Your task to perform on an android device: turn off location history Image 0: 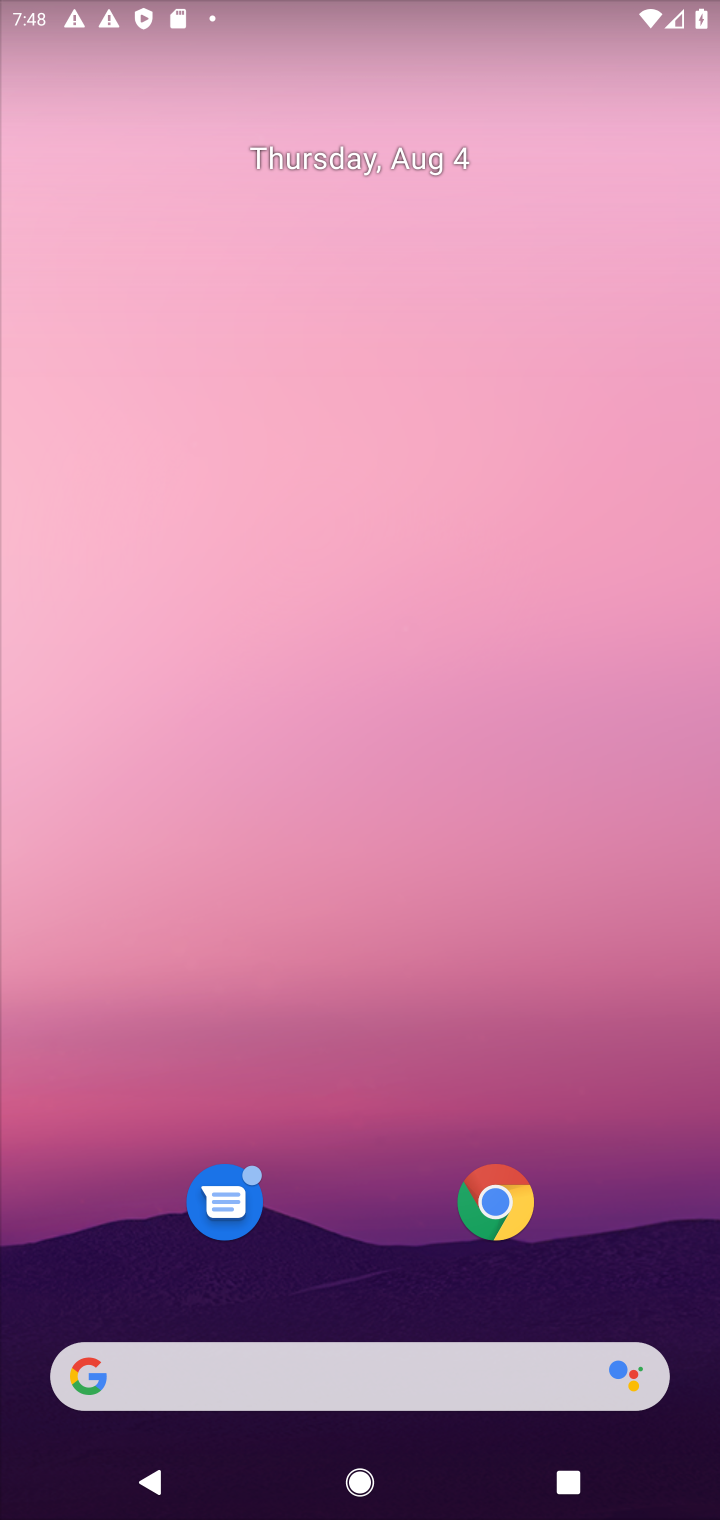
Step 0: drag from (365, 685) to (407, 225)
Your task to perform on an android device: turn off location history Image 1: 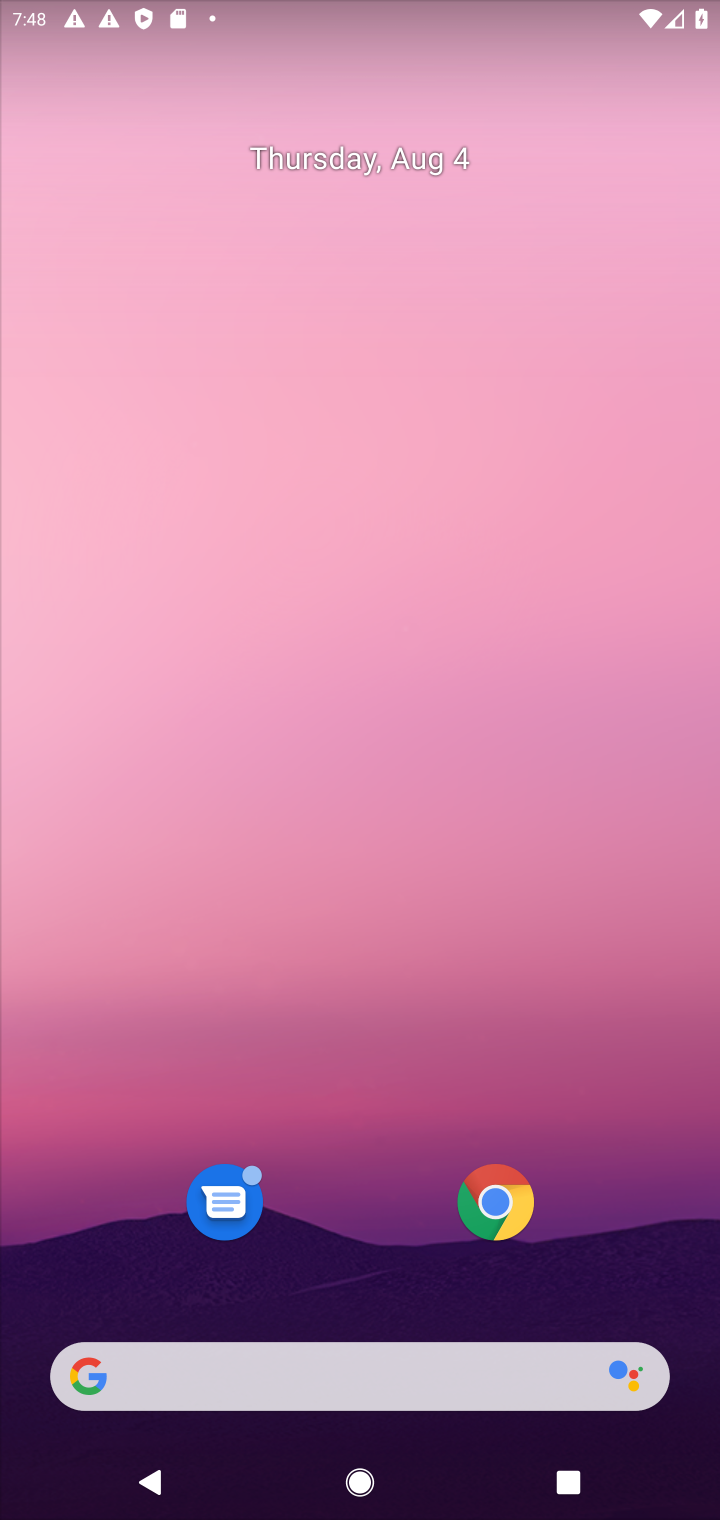
Step 1: drag from (363, 1241) to (361, 242)
Your task to perform on an android device: turn off location history Image 2: 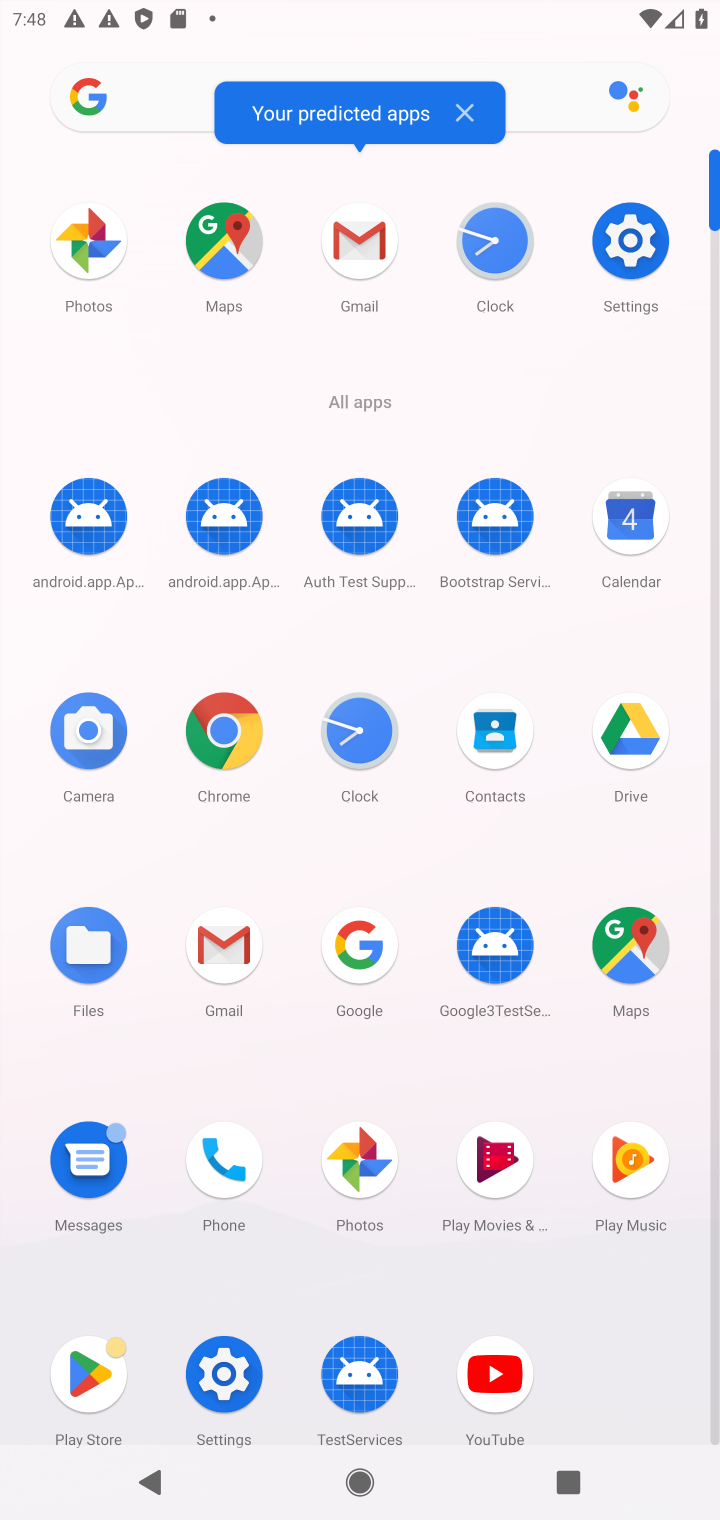
Step 2: click (622, 276)
Your task to perform on an android device: turn off location history Image 3: 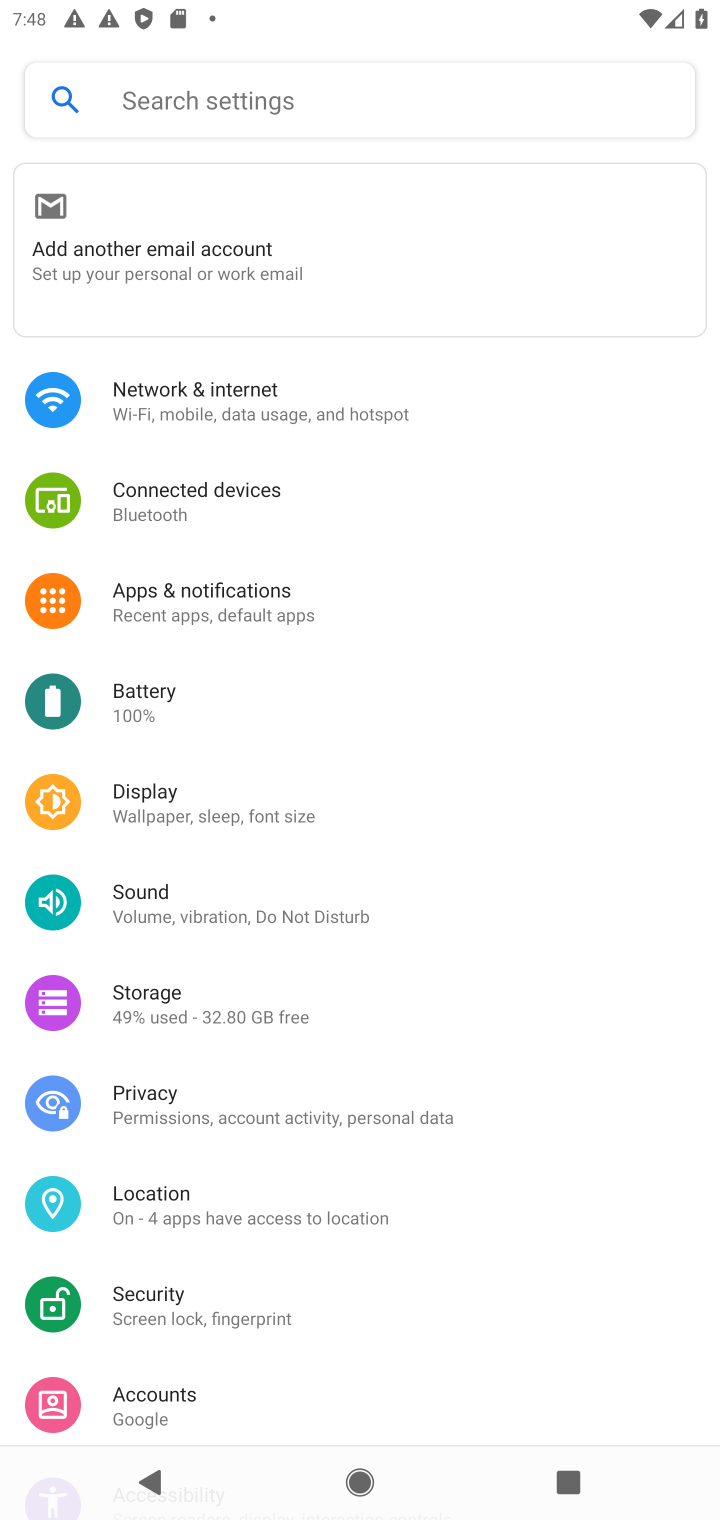
Step 3: drag from (247, 1180) to (250, 738)
Your task to perform on an android device: turn off location history Image 4: 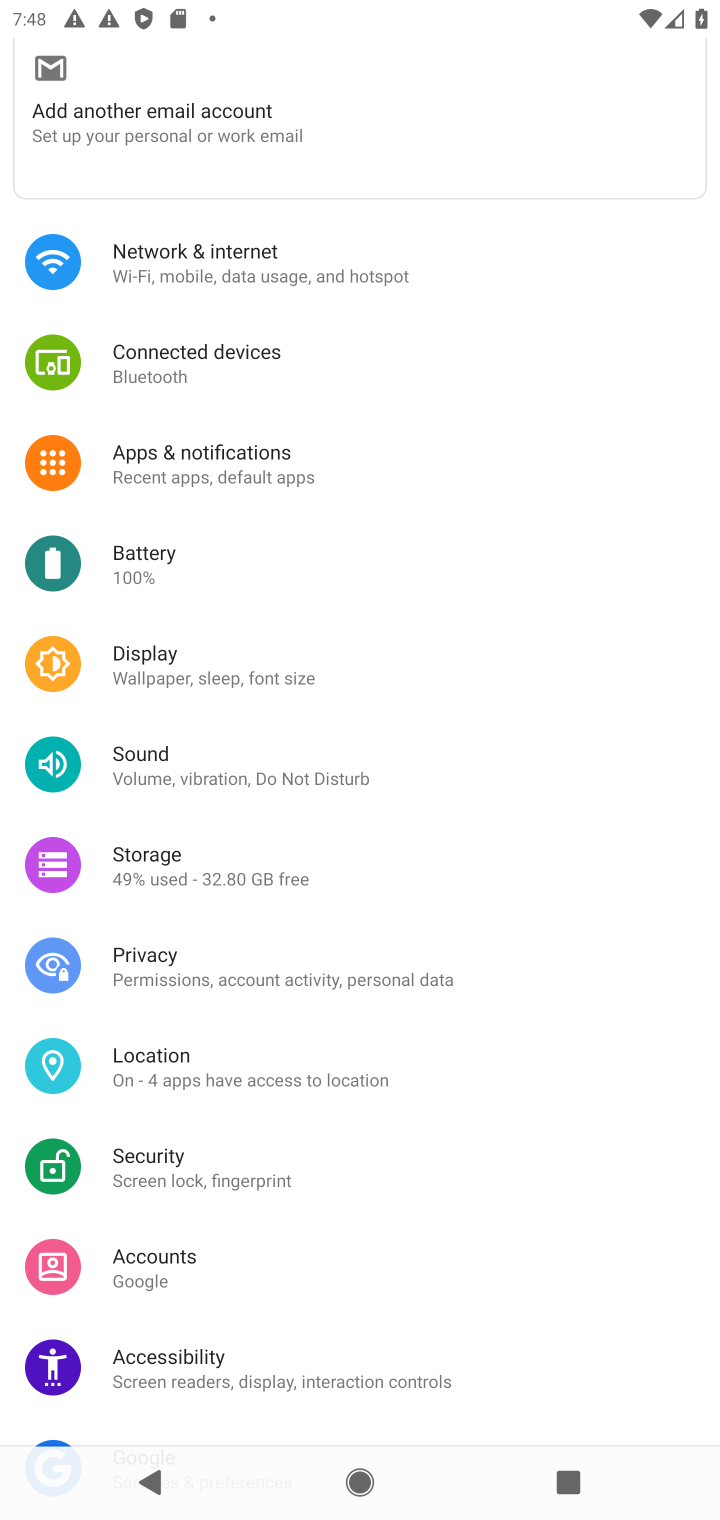
Step 4: click (237, 1048)
Your task to perform on an android device: turn off location history Image 5: 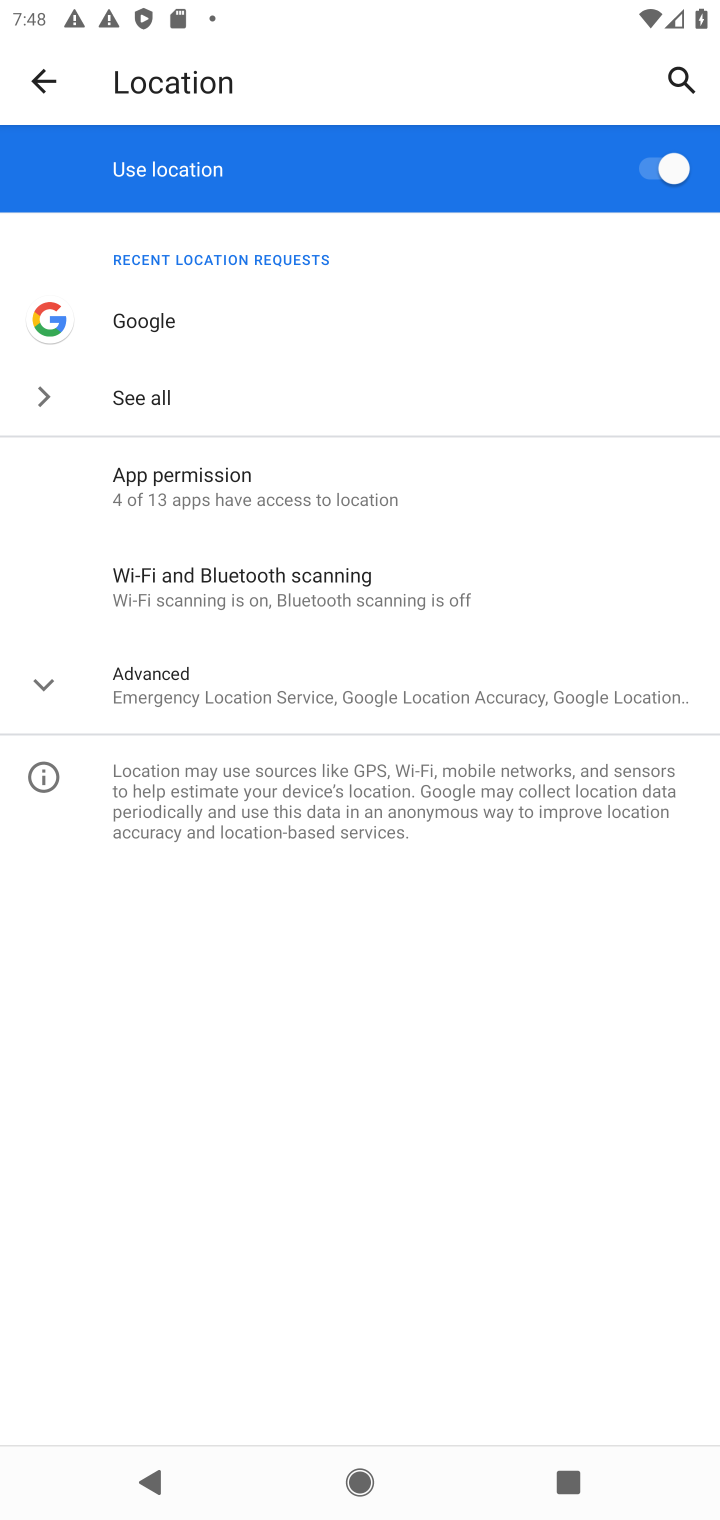
Step 5: click (258, 674)
Your task to perform on an android device: turn off location history Image 6: 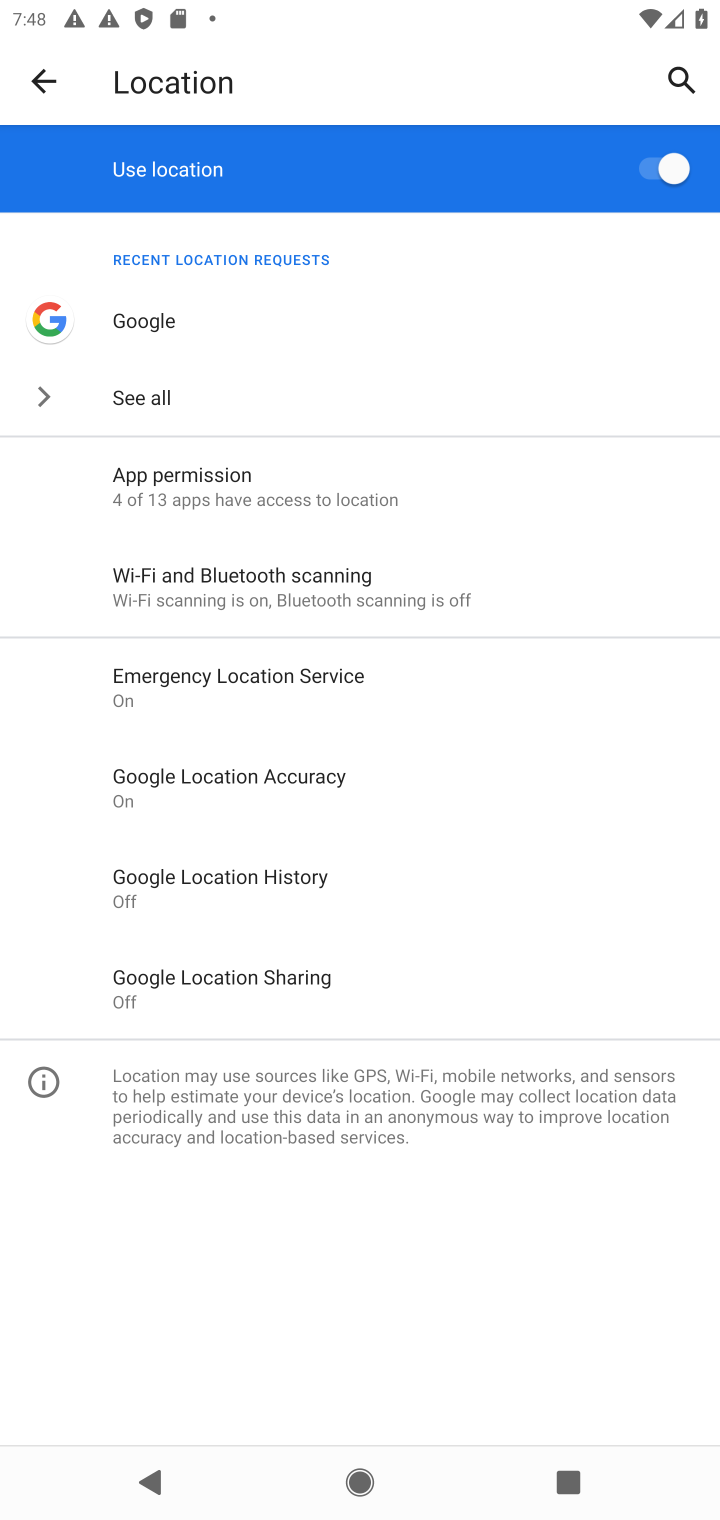
Step 6: click (329, 892)
Your task to perform on an android device: turn off location history Image 7: 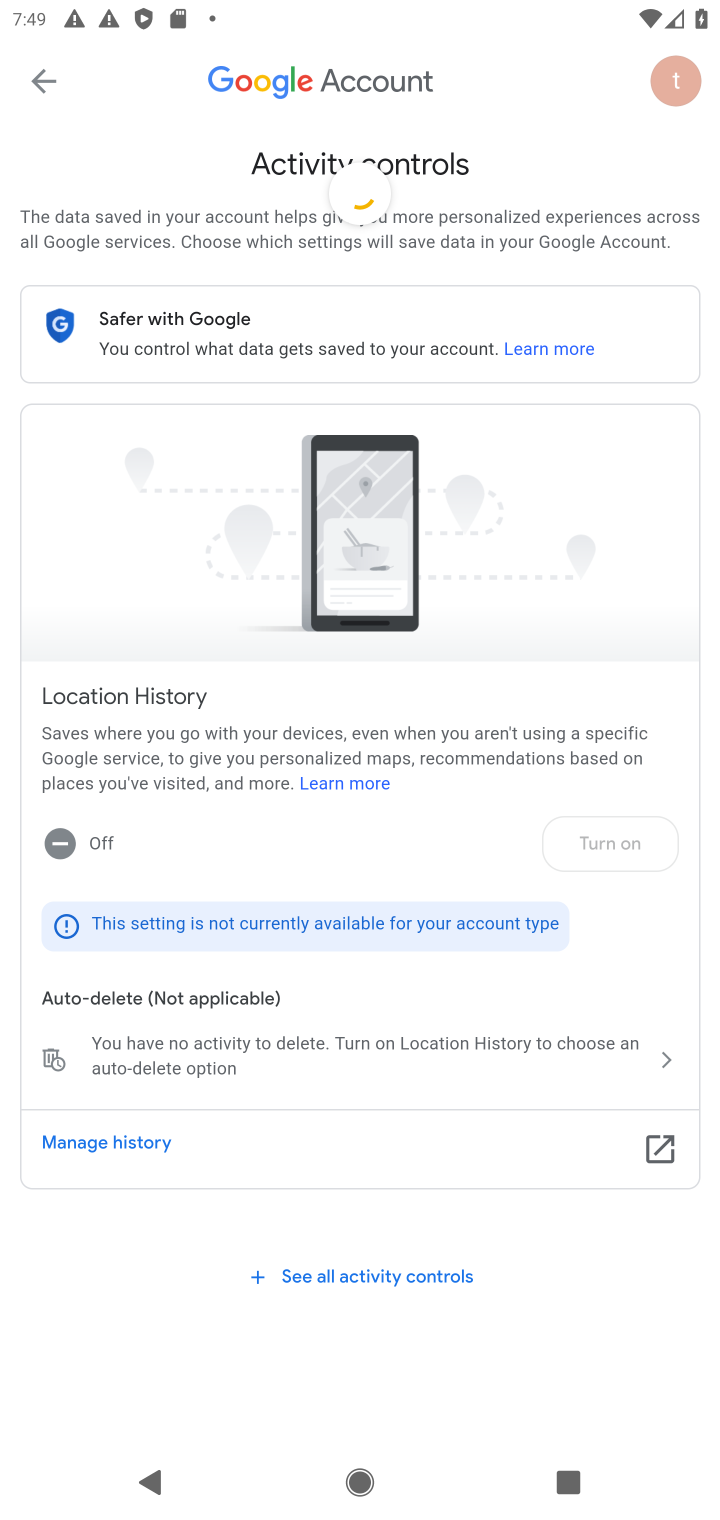
Step 7: task complete